Your task to perform on an android device: check google app version Image 0: 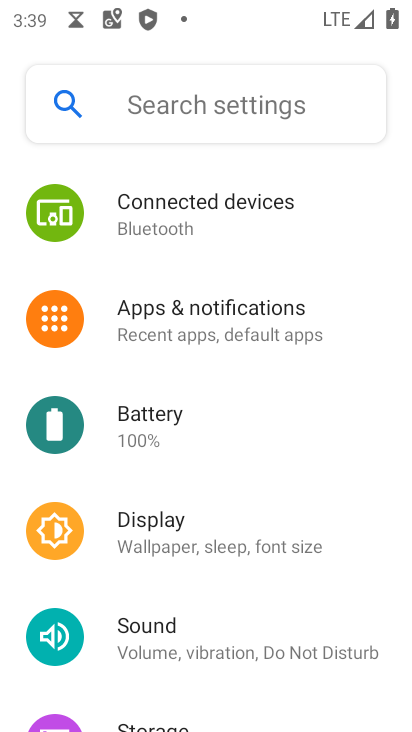
Step 0: press home button
Your task to perform on an android device: check google app version Image 1: 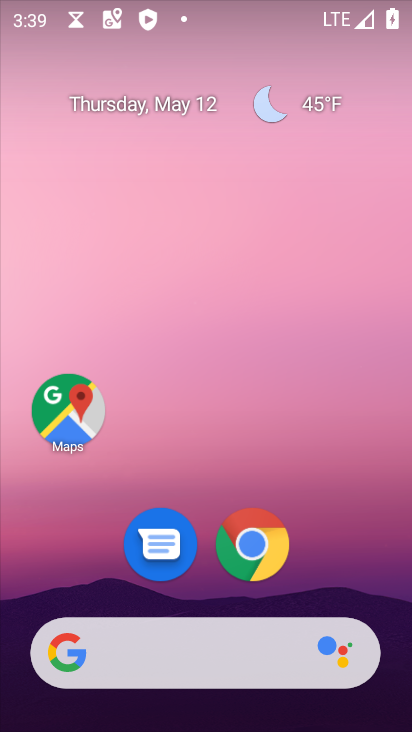
Step 1: drag from (217, 588) to (226, 0)
Your task to perform on an android device: check google app version Image 2: 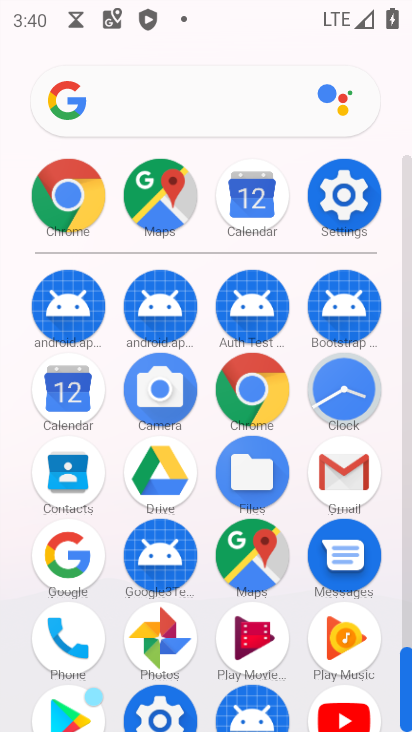
Step 2: click (44, 563)
Your task to perform on an android device: check google app version Image 3: 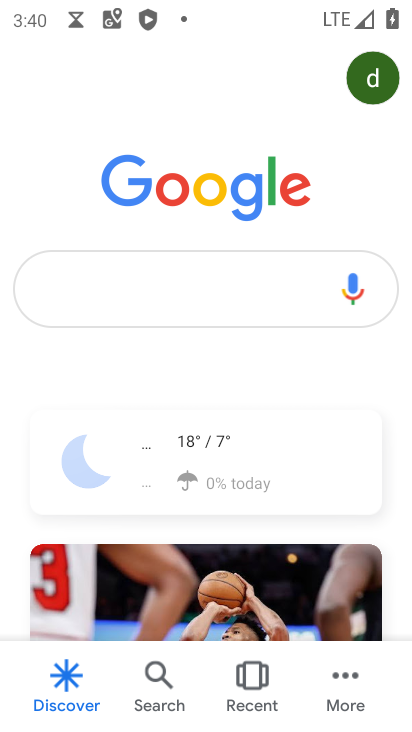
Step 3: click (356, 686)
Your task to perform on an android device: check google app version Image 4: 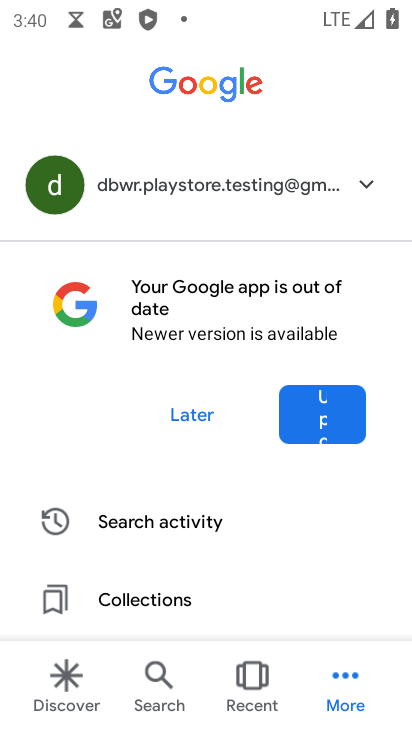
Step 4: drag from (262, 602) to (266, 261)
Your task to perform on an android device: check google app version Image 5: 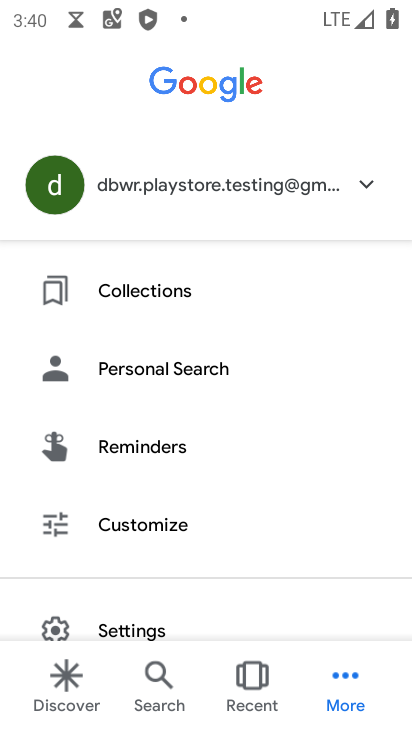
Step 5: drag from (194, 562) to (182, 280)
Your task to perform on an android device: check google app version Image 6: 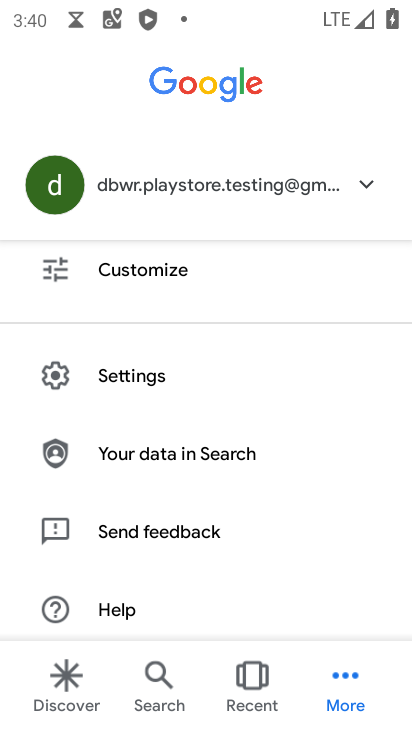
Step 6: click (125, 380)
Your task to perform on an android device: check google app version Image 7: 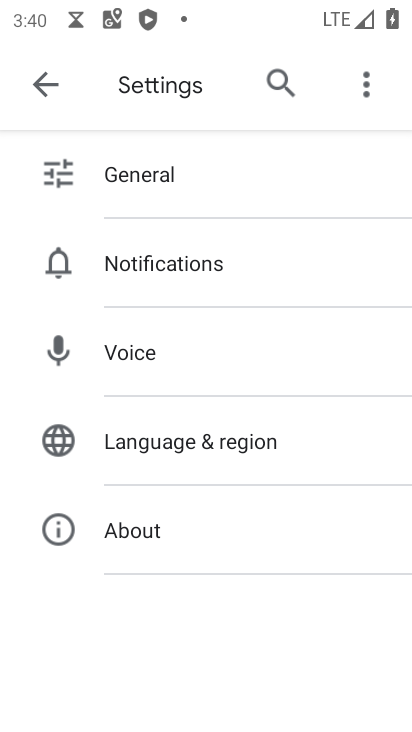
Step 7: click (164, 533)
Your task to perform on an android device: check google app version Image 8: 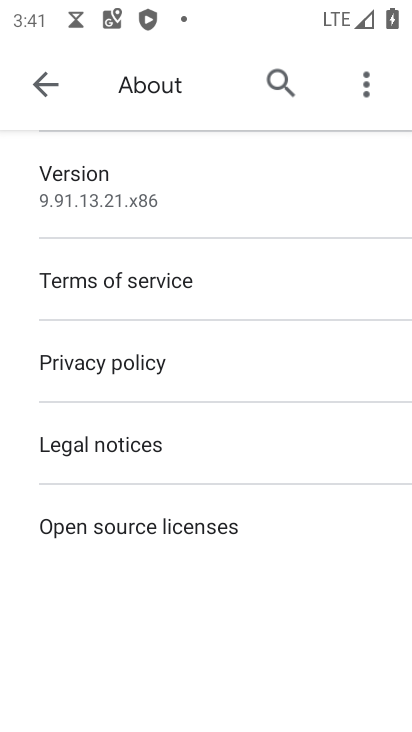
Step 8: click (128, 199)
Your task to perform on an android device: check google app version Image 9: 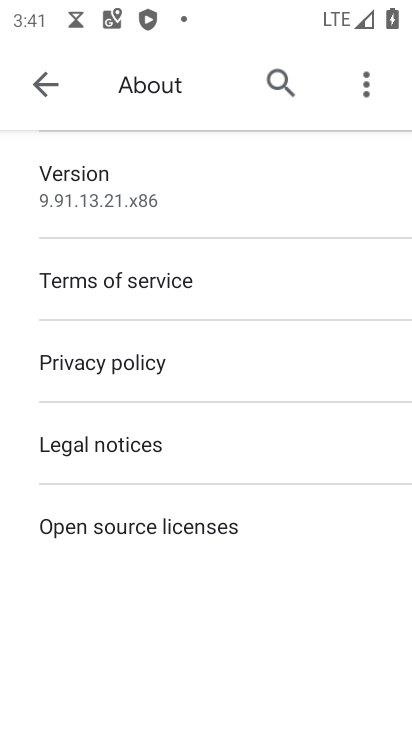
Step 9: task complete